Your task to perform on an android device: turn off improve location accuracy Image 0: 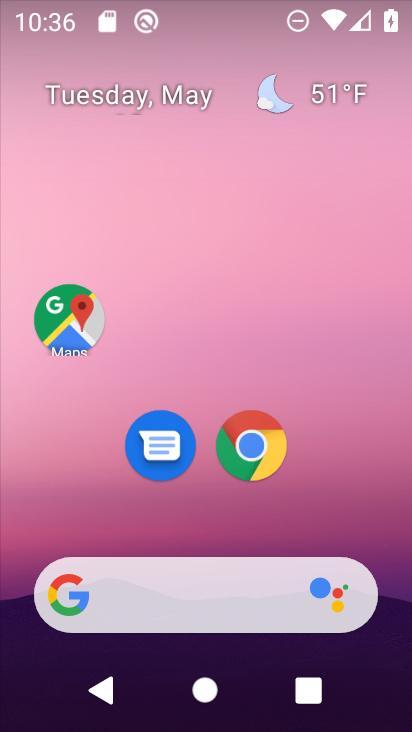
Step 0: drag from (233, 599) to (184, 8)
Your task to perform on an android device: turn off improve location accuracy Image 1: 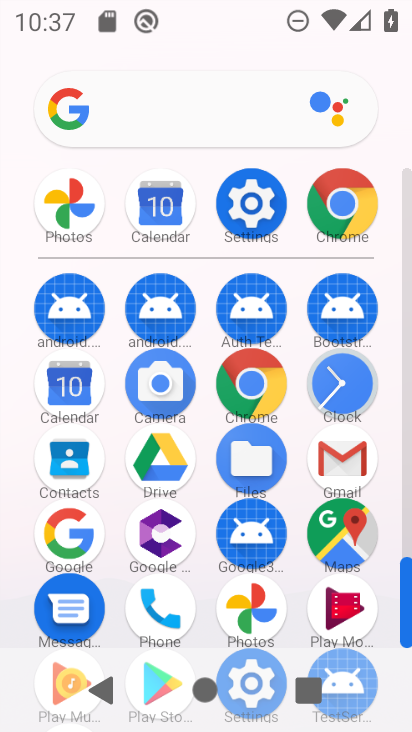
Step 1: click (268, 177)
Your task to perform on an android device: turn off improve location accuracy Image 2: 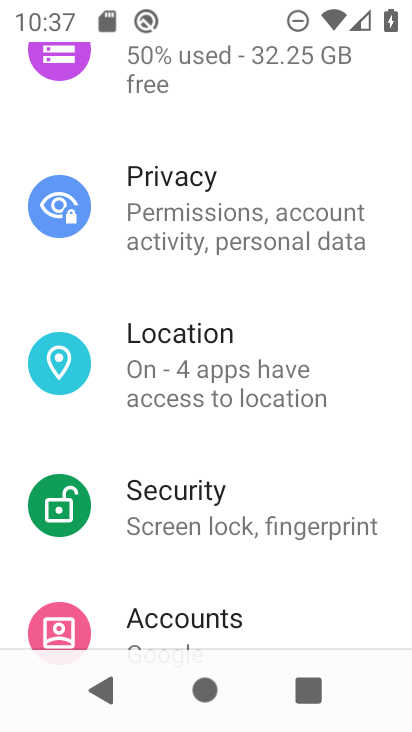
Step 2: click (217, 378)
Your task to perform on an android device: turn off improve location accuracy Image 3: 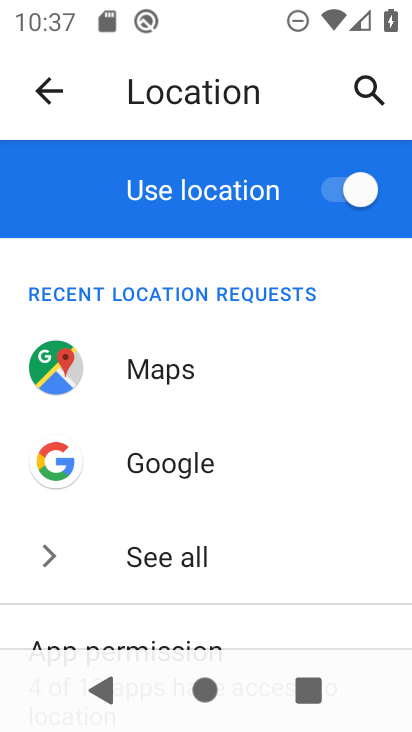
Step 3: drag from (173, 557) to (137, 143)
Your task to perform on an android device: turn off improve location accuracy Image 4: 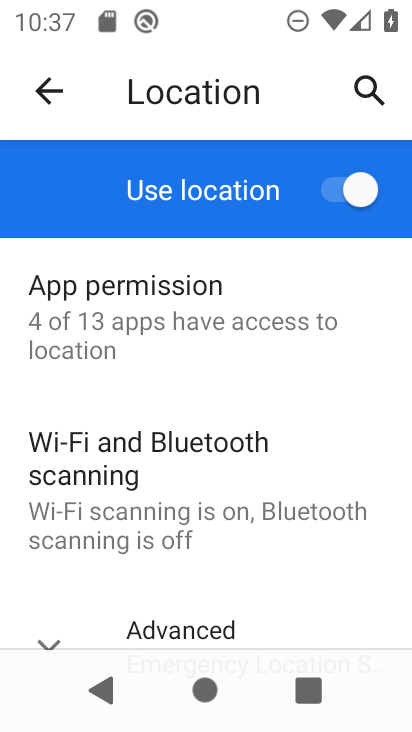
Step 4: drag from (184, 563) to (138, 148)
Your task to perform on an android device: turn off improve location accuracy Image 5: 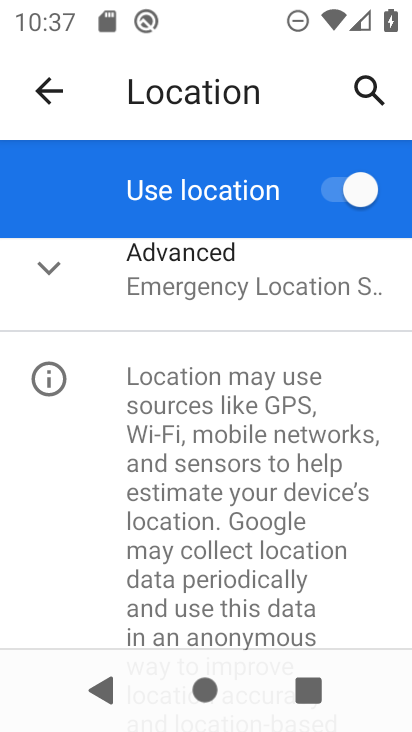
Step 5: click (152, 310)
Your task to perform on an android device: turn off improve location accuracy Image 6: 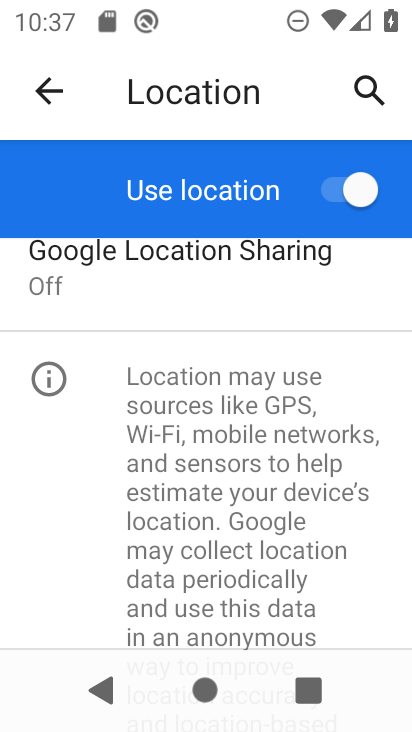
Step 6: drag from (152, 321) to (192, 707)
Your task to perform on an android device: turn off improve location accuracy Image 7: 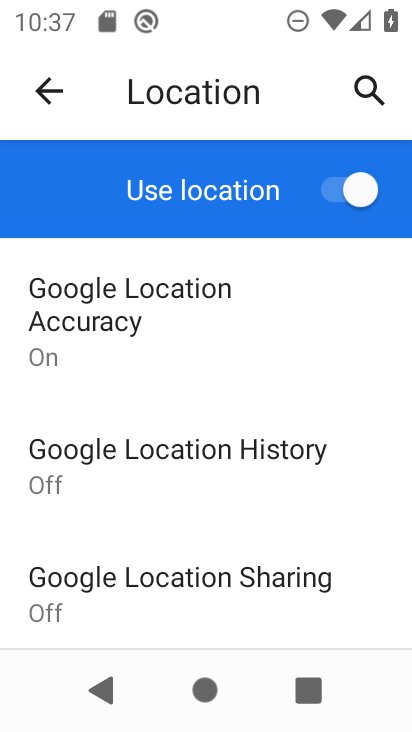
Step 7: click (119, 288)
Your task to perform on an android device: turn off improve location accuracy Image 8: 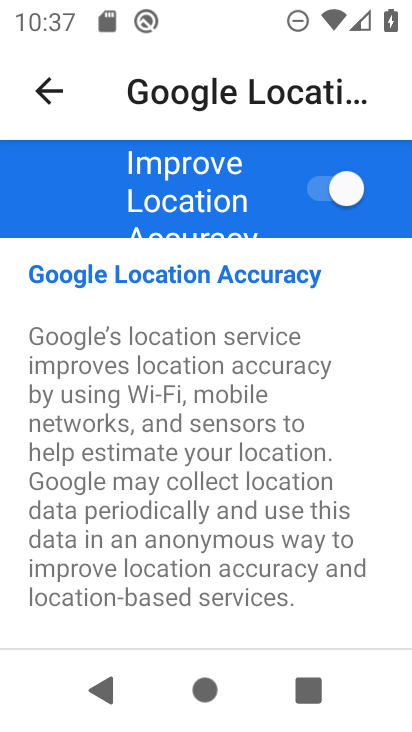
Step 8: click (334, 198)
Your task to perform on an android device: turn off improve location accuracy Image 9: 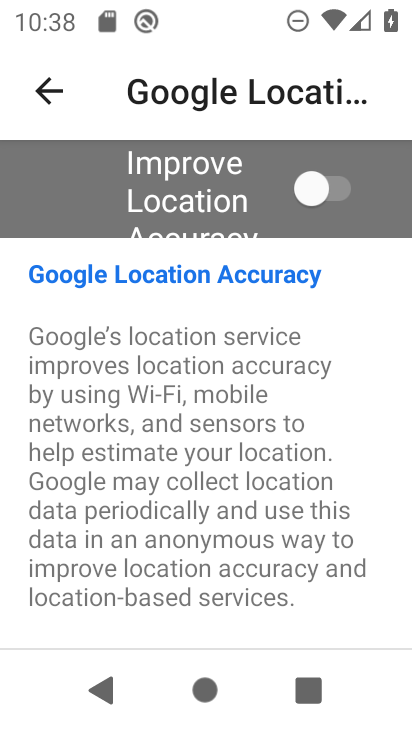
Step 9: task complete